Your task to perform on an android device: Find coffee shops on Maps Image 0: 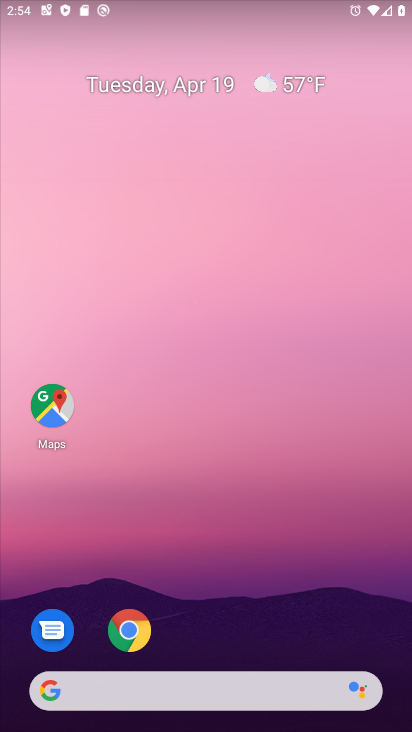
Step 0: click (49, 412)
Your task to perform on an android device: Find coffee shops on Maps Image 1: 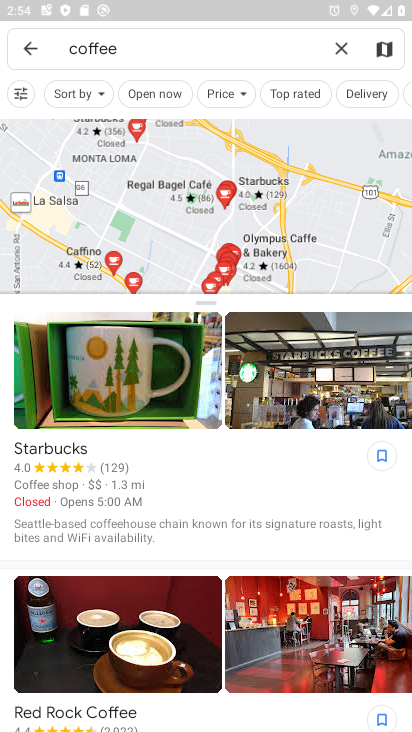
Step 1: task complete